Your task to perform on an android device: Do I have any events tomorrow? Image 0: 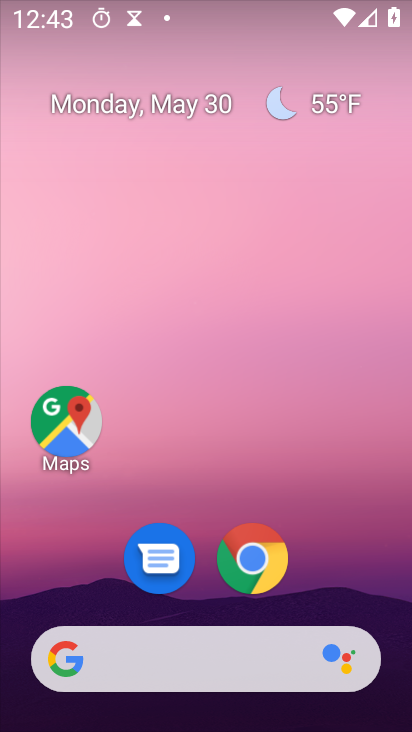
Step 0: drag from (339, 561) to (354, 117)
Your task to perform on an android device: Do I have any events tomorrow? Image 1: 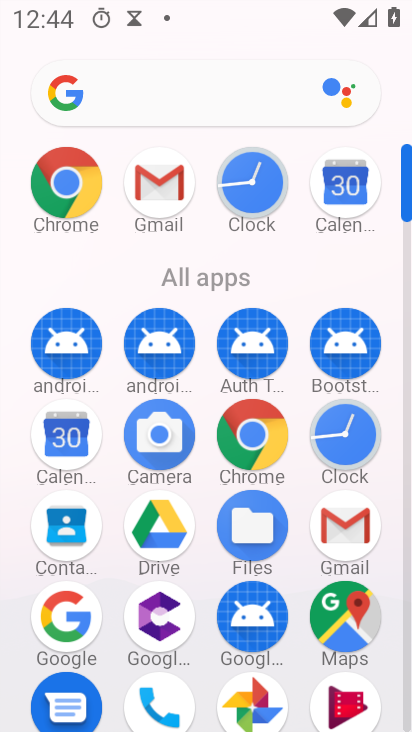
Step 1: click (341, 182)
Your task to perform on an android device: Do I have any events tomorrow? Image 2: 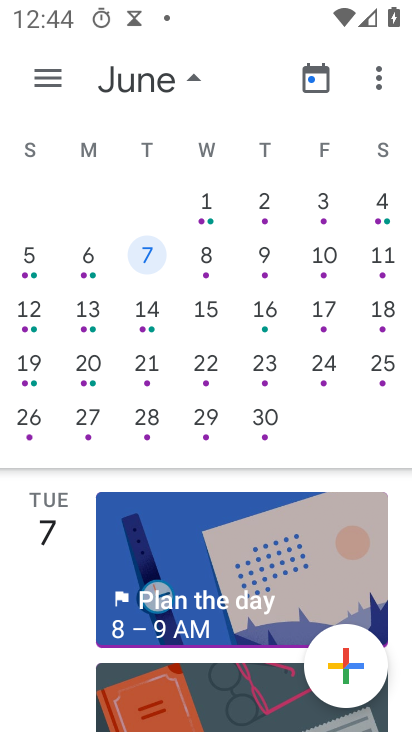
Step 2: task complete